Your task to perform on an android device: Go to wifi settings Image 0: 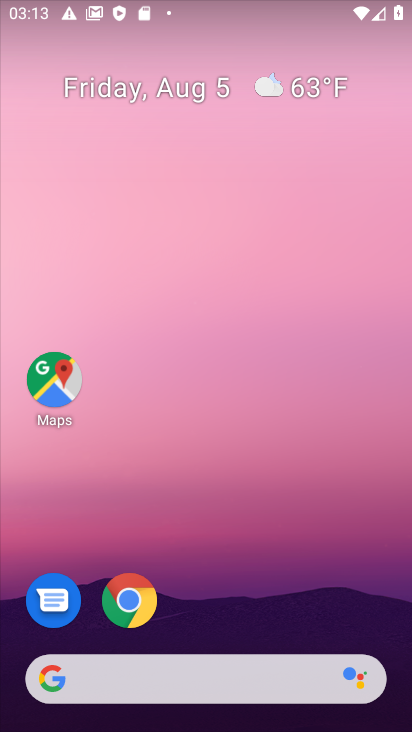
Step 0: drag from (206, 683) to (237, 207)
Your task to perform on an android device: Go to wifi settings Image 1: 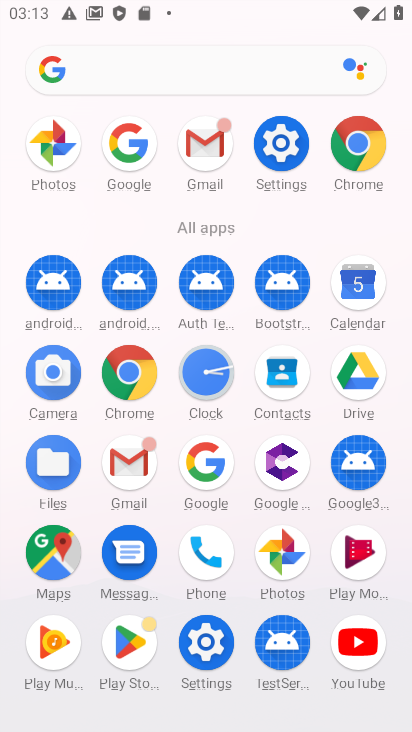
Step 1: click (279, 144)
Your task to perform on an android device: Go to wifi settings Image 2: 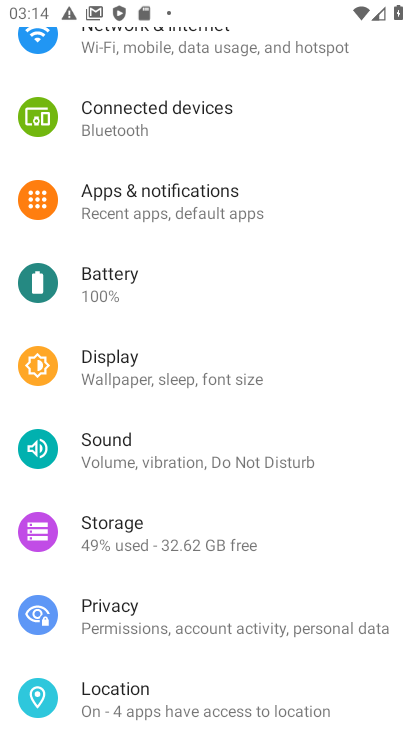
Step 2: drag from (244, 125) to (273, 335)
Your task to perform on an android device: Go to wifi settings Image 3: 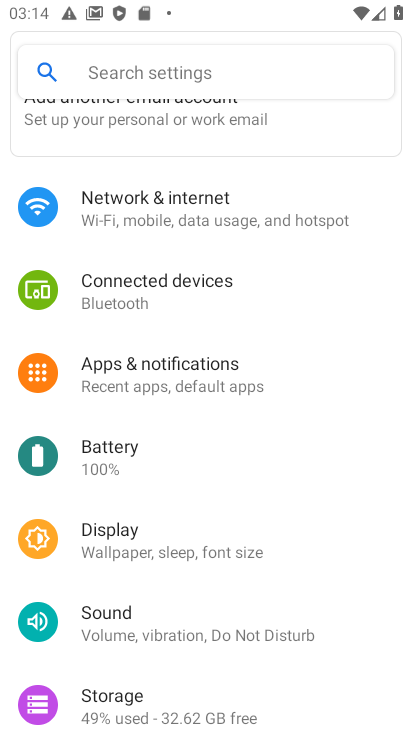
Step 3: click (159, 216)
Your task to perform on an android device: Go to wifi settings Image 4: 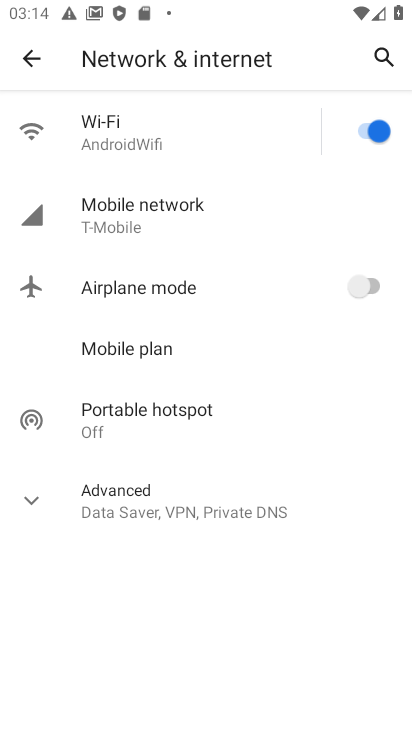
Step 4: click (119, 143)
Your task to perform on an android device: Go to wifi settings Image 5: 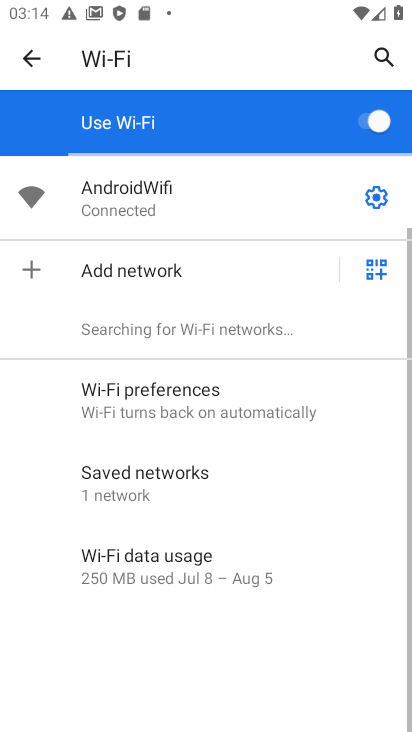
Step 5: click (379, 200)
Your task to perform on an android device: Go to wifi settings Image 6: 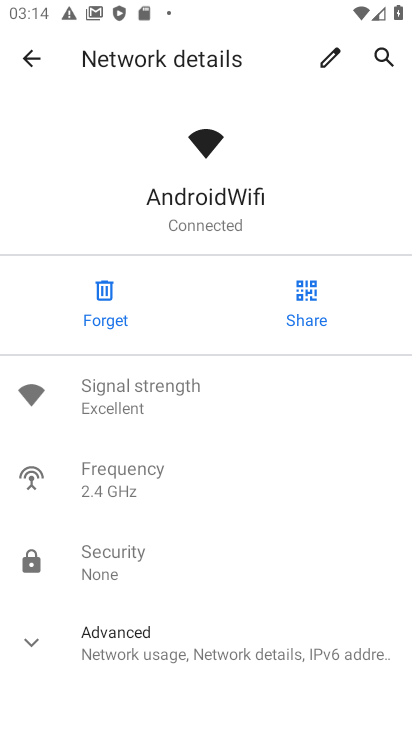
Step 6: task complete